Your task to perform on an android device: Open Google Maps and go to "Timeline" Image 0: 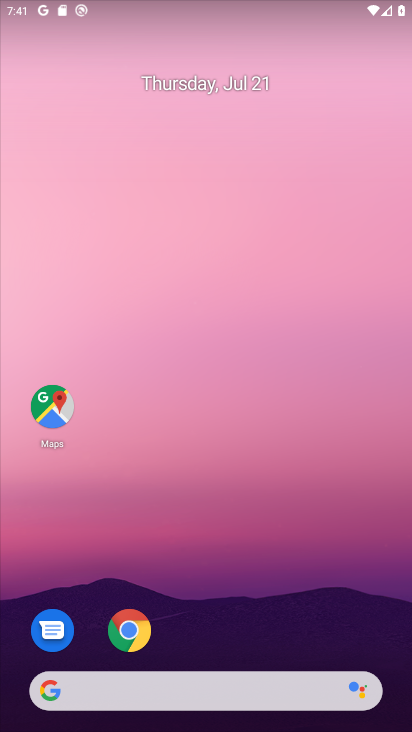
Step 0: drag from (216, 679) to (125, 16)
Your task to perform on an android device: Open Google Maps and go to "Timeline" Image 1: 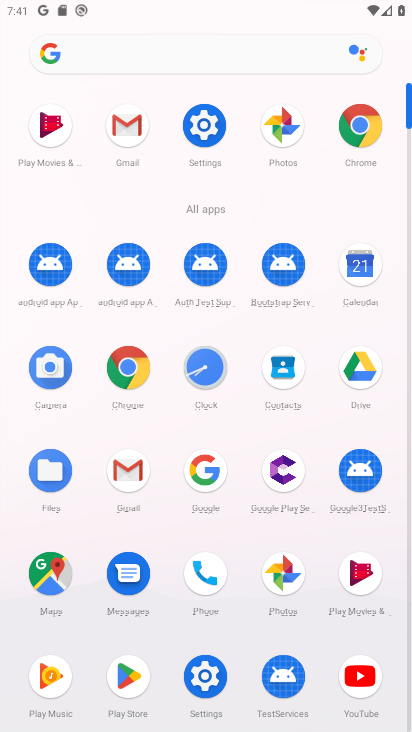
Step 1: click (48, 576)
Your task to perform on an android device: Open Google Maps and go to "Timeline" Image 2: 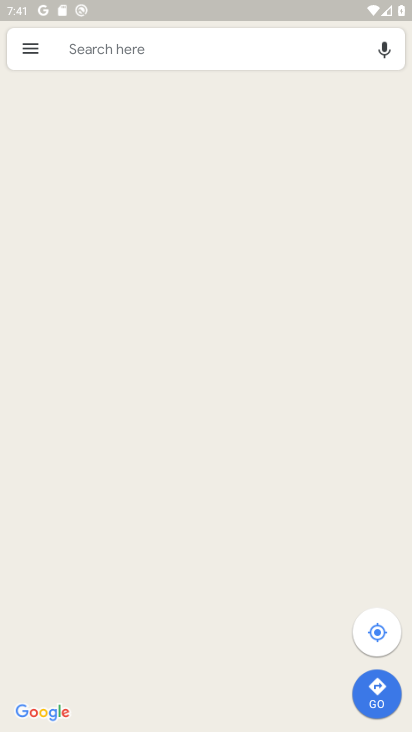
Step 2: click (32, 51)
Your task to perform on an android device: Open Google Maps and go to "Timeline" Image 3: 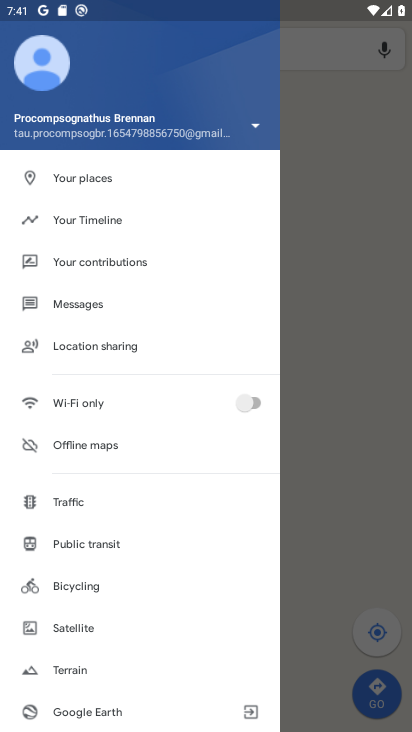
Step 3: click (71, 219)
Your task to perform on an android device: Open Google Maps and go to "Timeline" Image 4: 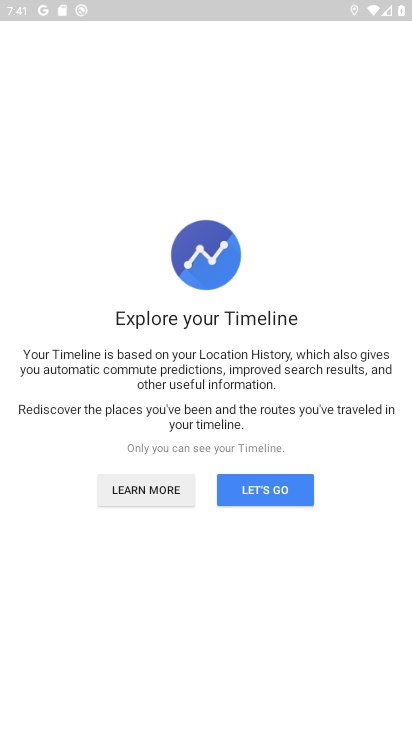
Step 4: click (291, 481)
Your task to perform on an android device: Open Google Maps and go to "Timeline" Image 5: 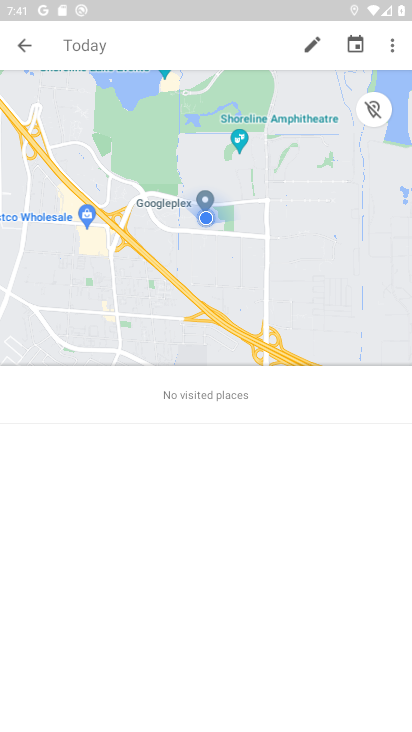
Step 5: task complete